Your task to perform on an android device: How much does the Samsung TV cost? Image 0: 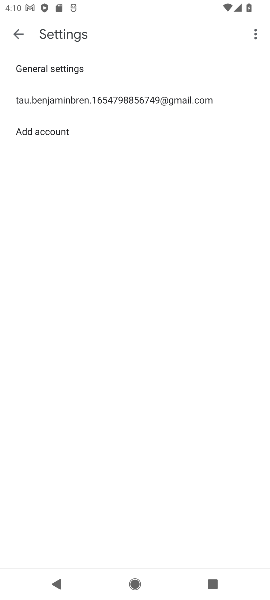
Step 0: press home button
Your task to perform on an android device: How much does the Samsung TV cost? Image 1: 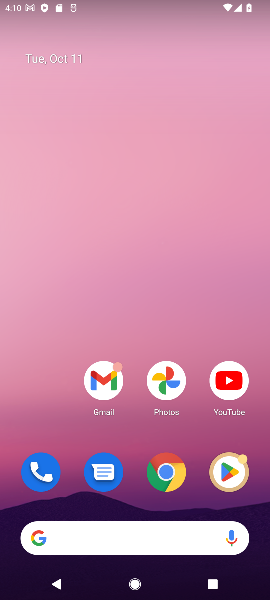
Step 1: click (128, 531)
Your task to perform on an android device: How much does the Samsung TV cost? Image 2: 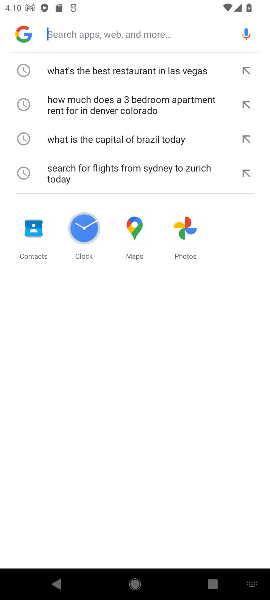
Step 2: type "How much does the Samsung TV cost?"
Your task to perform on an android device: How much does the Samsung TV cost? Image 3: 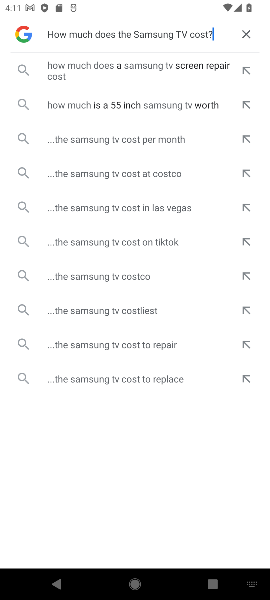
Step 3: click (121, 176)
Your task to perform on an android device: How much does the Samsung TV cost? Image 4: 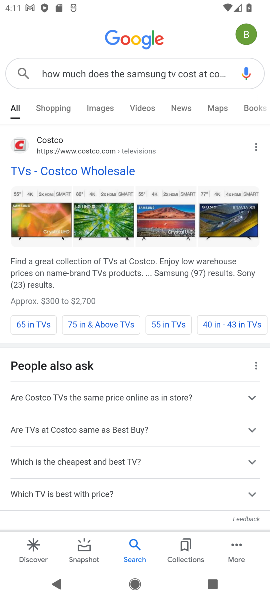
Step 4: task complete